Your task to perform on an android device: Do I have any events tomorrow? Image 0: 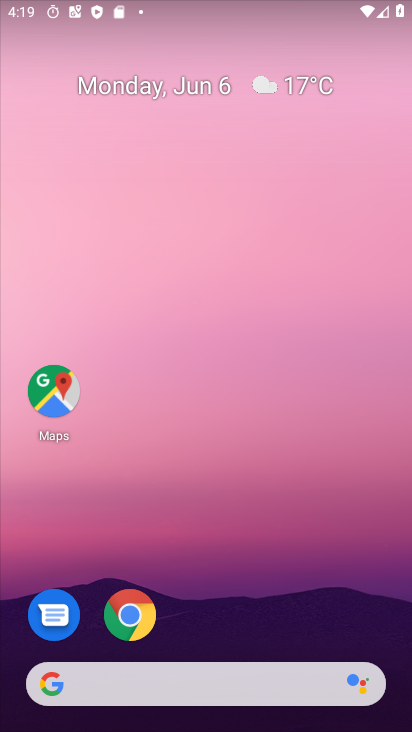
Step 0: drag from (208, 697) to (215, 0)
Your task to perform on an android device: Do I have any events tomorrow? Image 1: 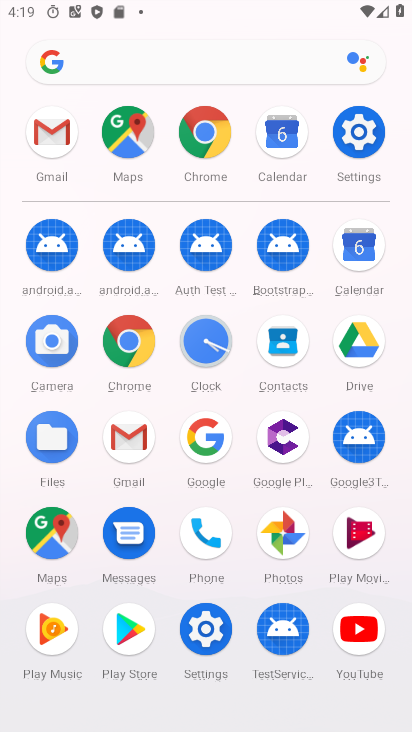
Step 1: click (358, 249)
Your task to perform on an android device: Do I have any events tomorrow? Image 2: 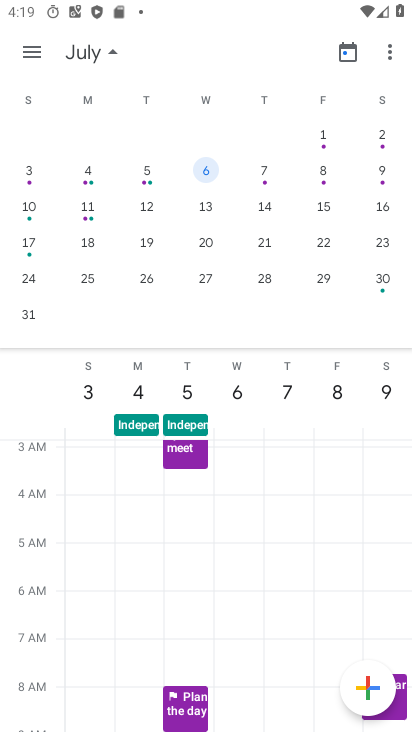
Step 2: click (257, 182)
Your task to perform on an android device: Do I have any events tomorrow? Image 3: 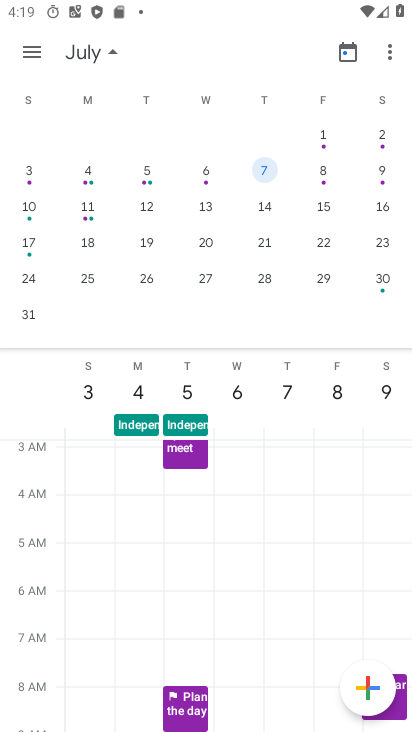
Step 3: task complete